Your task to perform on an android device: turn on improve location accuracy Image 0: 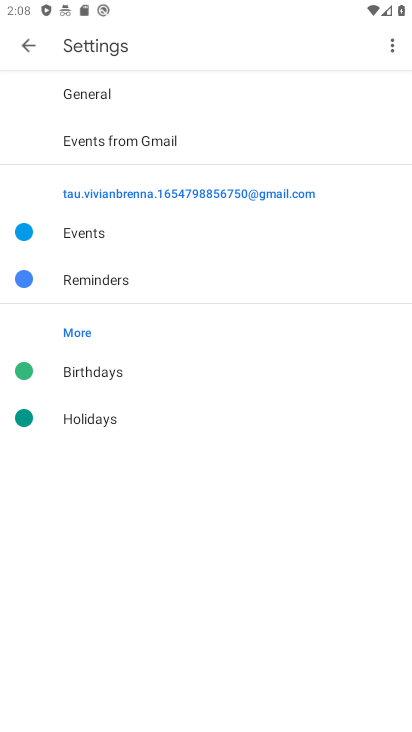
Step 0: click (26, 44)
Your task to perform on an android device: turn on improve location accuracy Image 1: 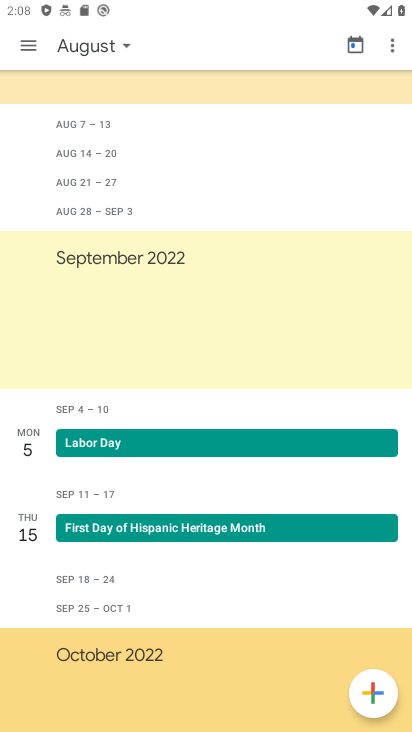
Step 1: press back button
Your task to perform on an android device: turn on improve location accuracy Image 2: 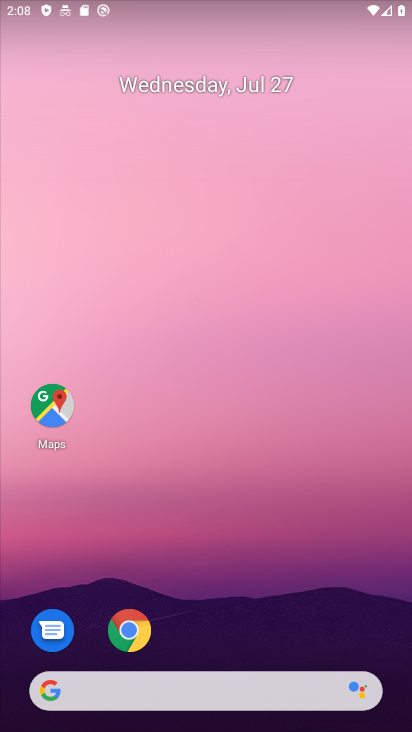
Step 2: drag from (220, 472) to (220, 40)
Your task to perform on an android device: turn on improve location accuracy Image 3: 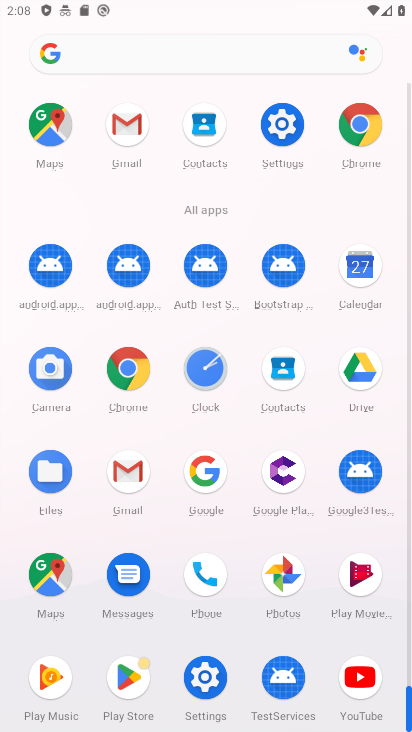
Step 3: click (165, 248)
Your task to perform on an android device: turn on improve location accuracy Image 4: 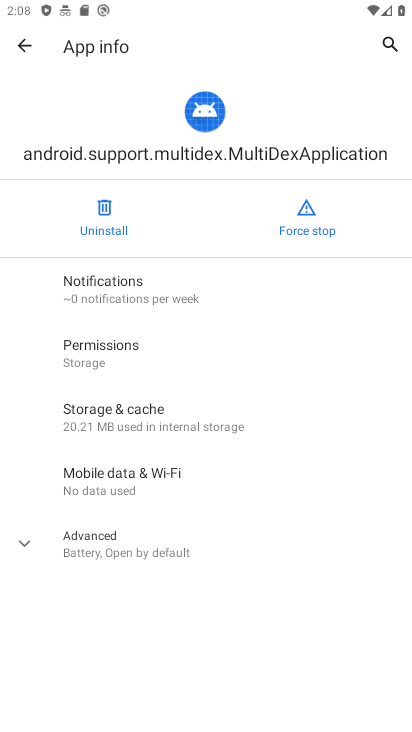
Step 4: click (16, 38)
Your task to perform on an android device: turn on improve location accuracy Image 5: 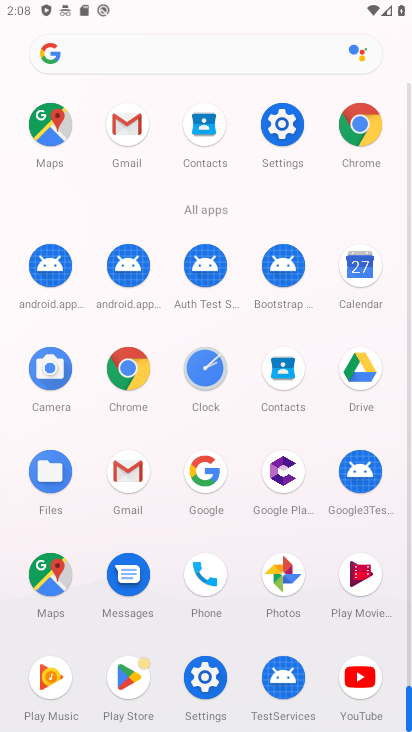
Step 5: click (213, 681)
Your task to perform on an android device: turn on improve location accuracy Image 6: 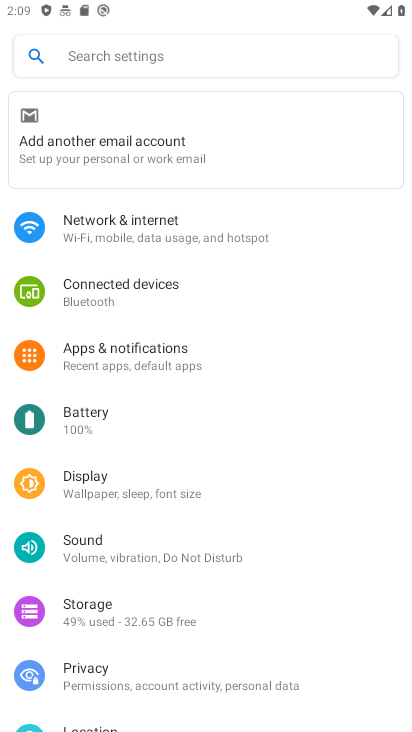
Step 6: drag from (114, 657) to (45, 324)
Your task to perform on an android device: turn on improve location accuracy Image 7: 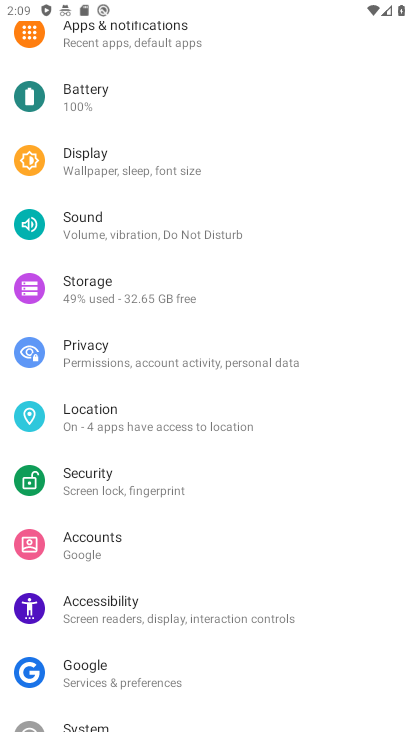
Step 7: drag from (114, 608) to (110, 426)
Your task to perform on an android device: turn on improve location accuracy Image 8: 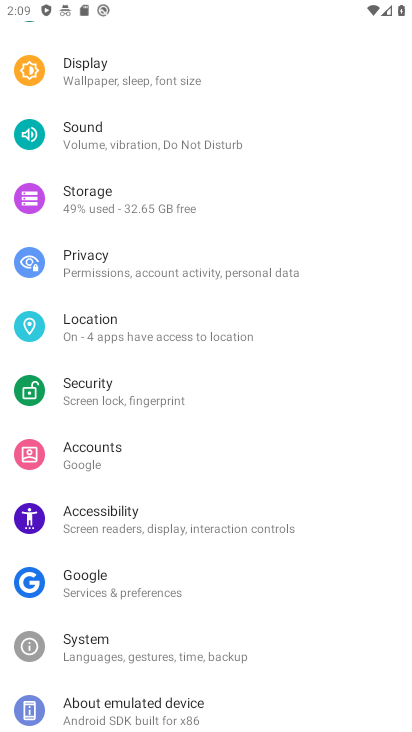
Step 8: drag from (122, 568) to (101, 427)
Your task to perform on an android device: turn on improve location accuracy Image 9: 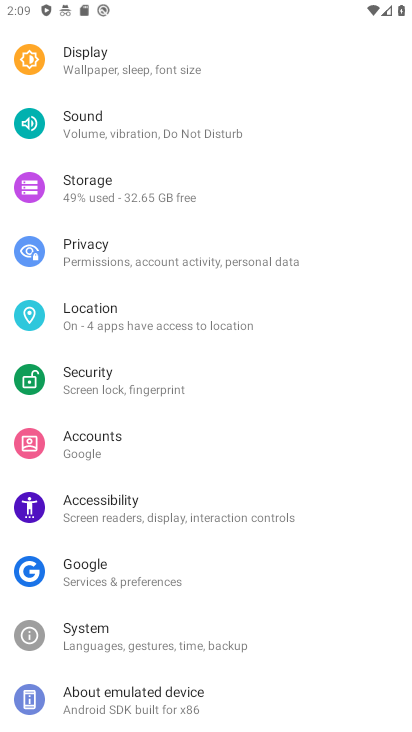
Step 9: click (101, 319)
Your task to perform on an android device: turn on improve location accuracy Image 10: 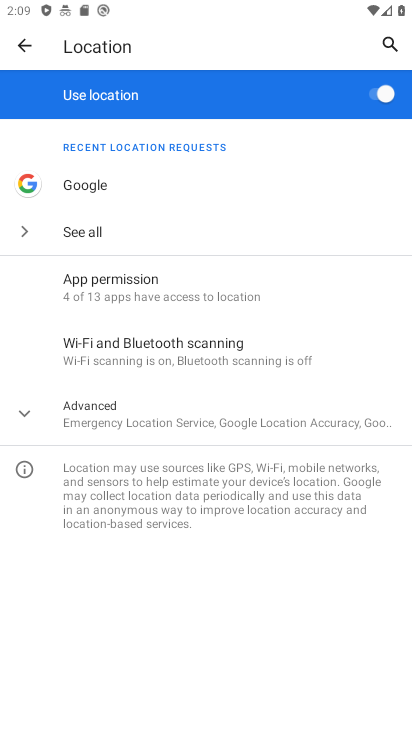
Step 10: click (114, 408)
Your task to perform on an android device: turn on improve location accuracy Image 11: 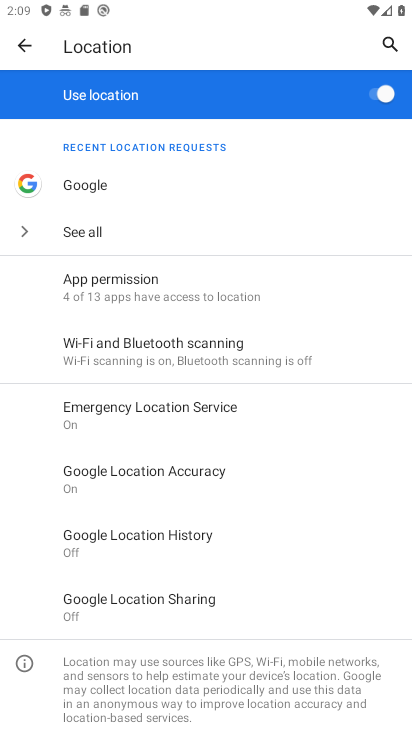
Step 11: click (166, 487)
Your task to perform on an android device: turn on improve location accuracy Image 12: 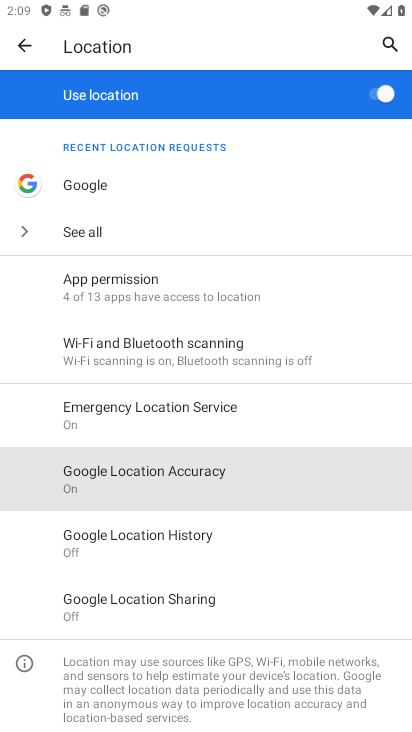
Step 12: click (166, 482)
Your task to perform on an android device: turn on improve location accuracy Image 13: 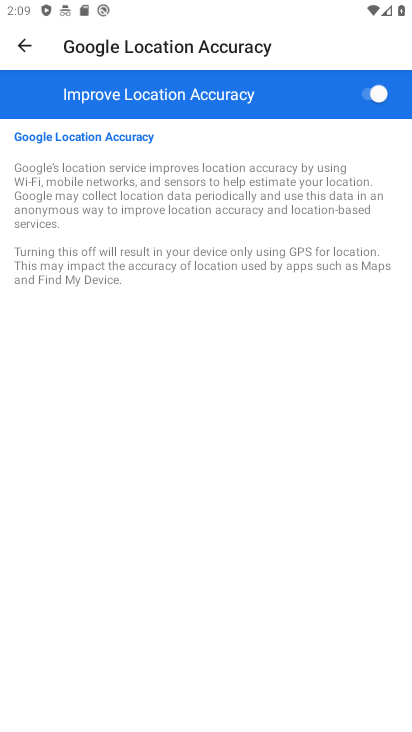
Step 13: task complete